Your task to perform on an android device: turn off location Image 0: 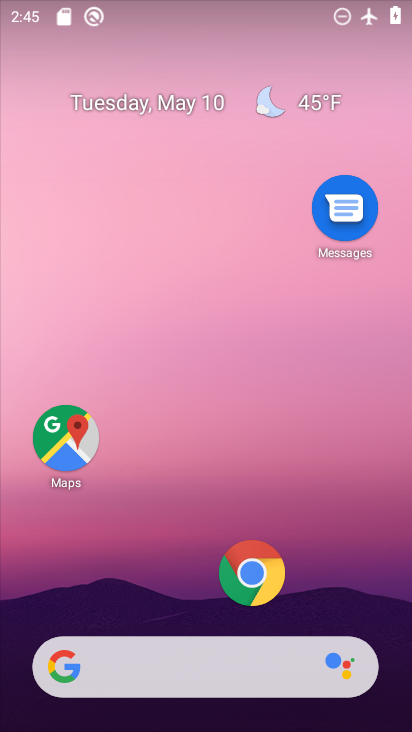
Step 0: drag from (202, 612) to (228, 238)
Your task to perform on an android device: turn off location Image 1: 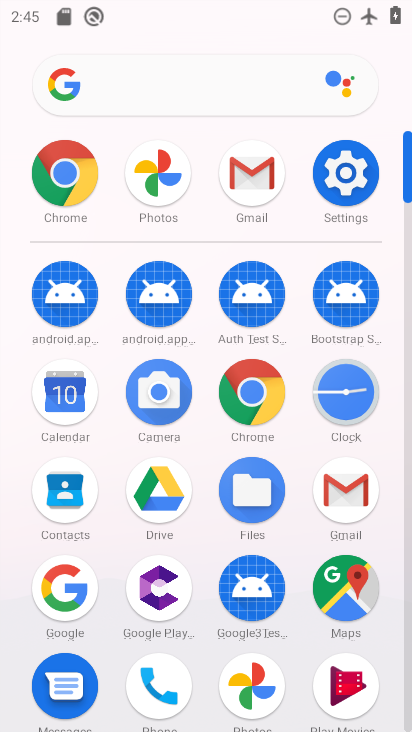
Step 1: click (347, 151)
Your task to perform on an android device: turn off location Image 2: 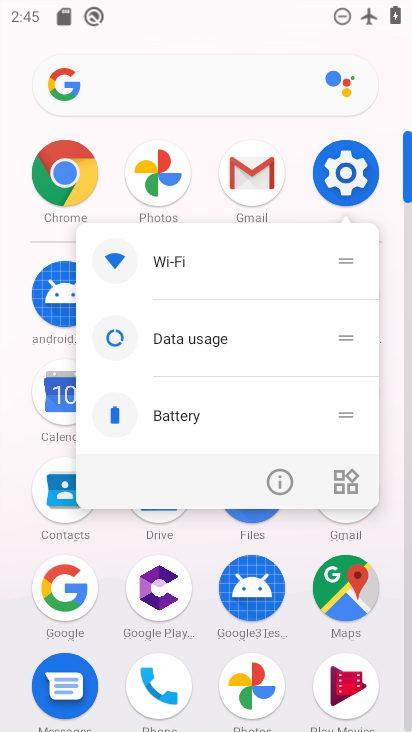
Step 2: click (278, 482)
Your task to perform on an android device: turn off location Image 3: 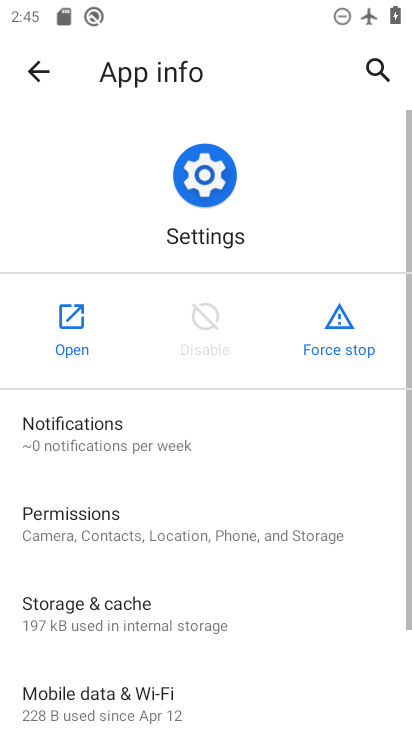
Step 3: click (67, 317)
Your task to perform on an android device: turn off location Image 4: 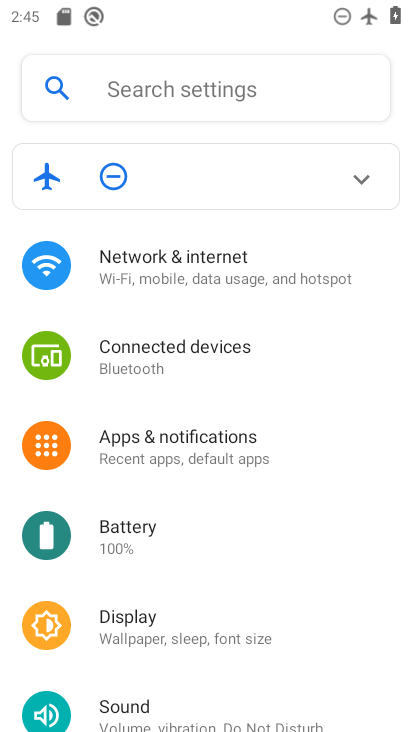
Step 4: drag from (116, 566) to (174, 256)
Your task to perform on an android device: turn off location Image 5: 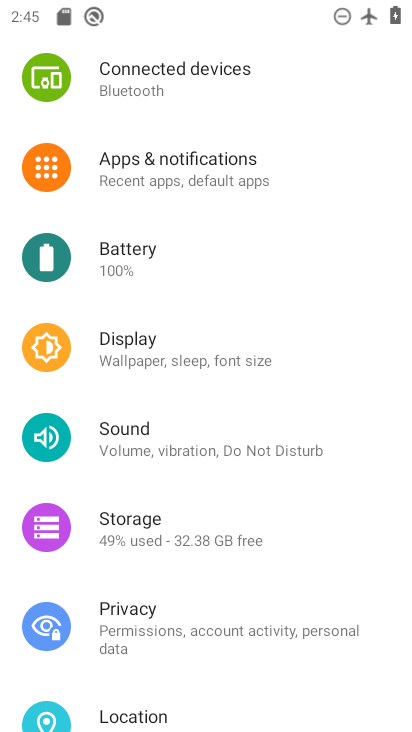
Step 5: drag from (198, 599) to (229, 356)
Your task to perform on an android device: turn off location Image 6: 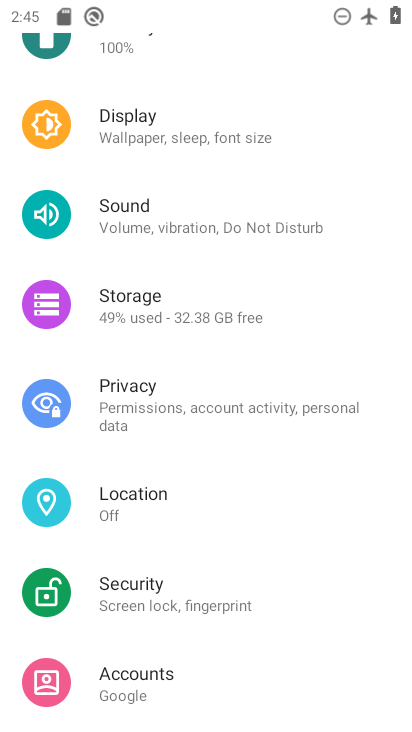
Step 6: click (180, 498)
Your task to perform on an android device: turn off location Image 7: 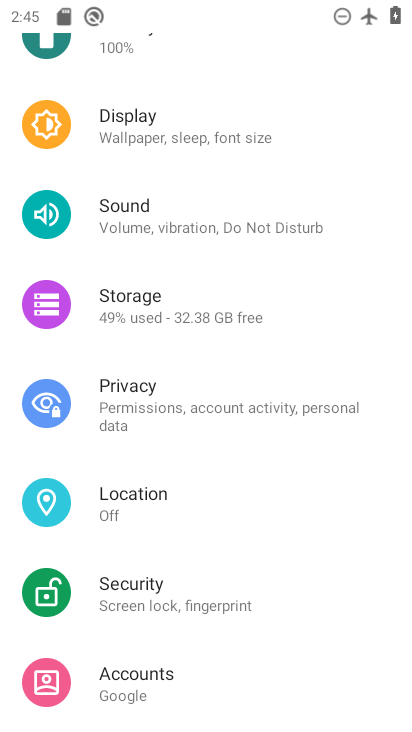
Step 7: click (180, 497)
Your task to perform on an android device: turn off location Image 8: 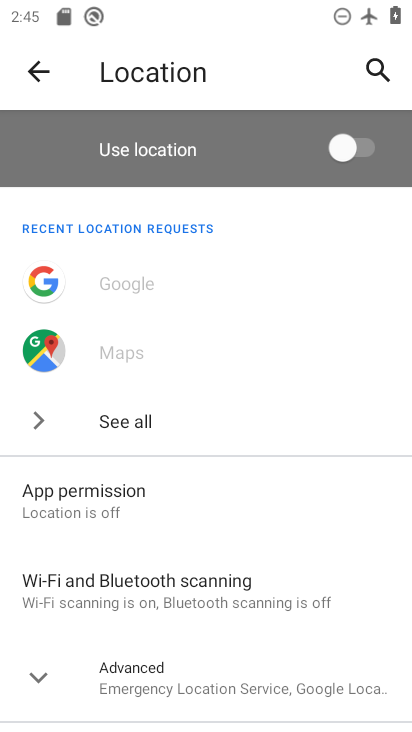
Step 8: click (339, 153)
Your task to perform on an android device: turn off location Image 9: 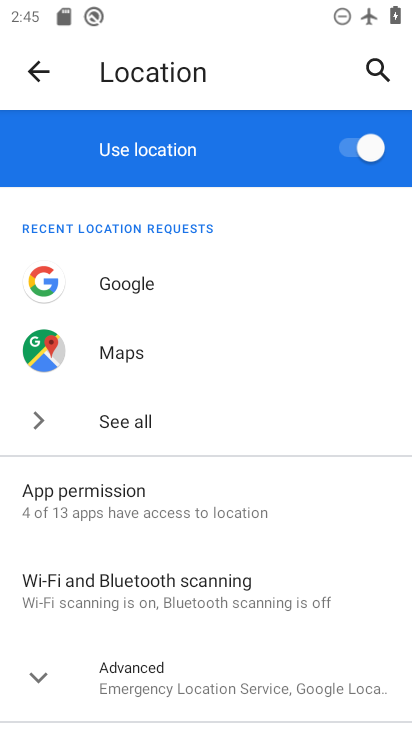
Step 9: click (374, 147)
Your task to perform on an android device: turn off location Image 10: 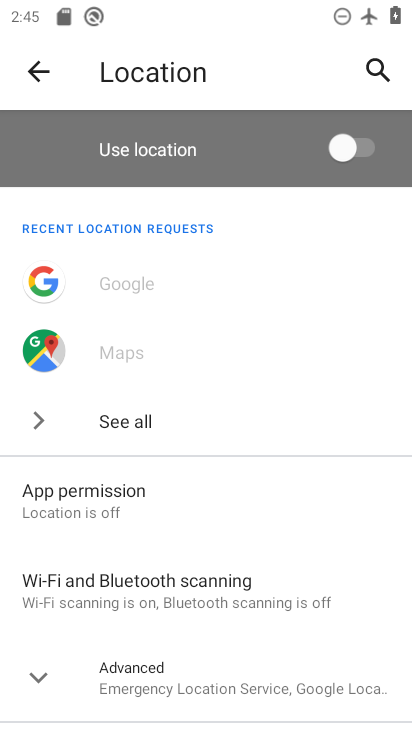
Step 10: task complete